Your task to perform on an android device: Open Android settings Image 0: 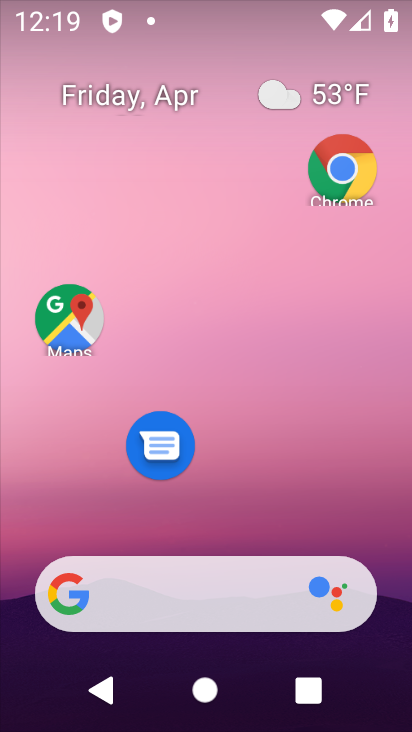
Step 0: click (336, 184)
Your task to perform on an android device: Open Android settings Image 1: 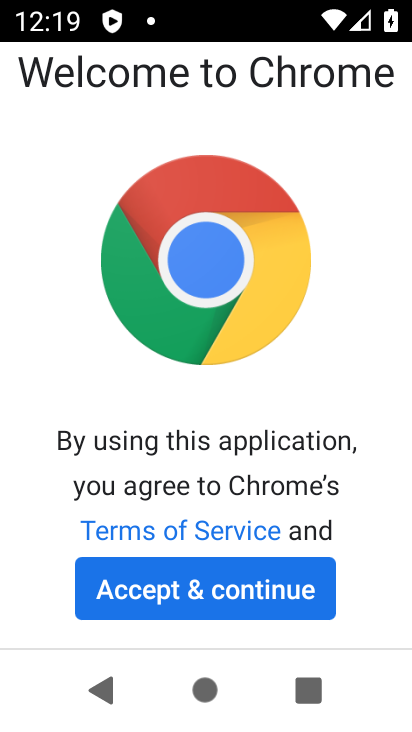
Step 1: click (248, 592)
Your task to perform on an android device: Open Android settings Image 2: 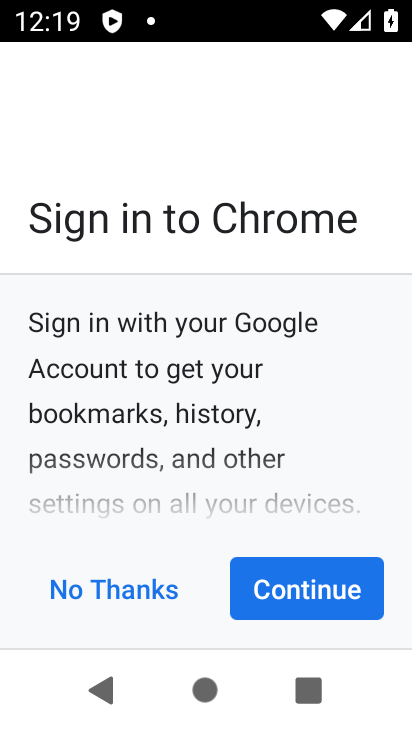
Step 2: press home button
Your task to perform on an android device: Open Android settings Image 3: 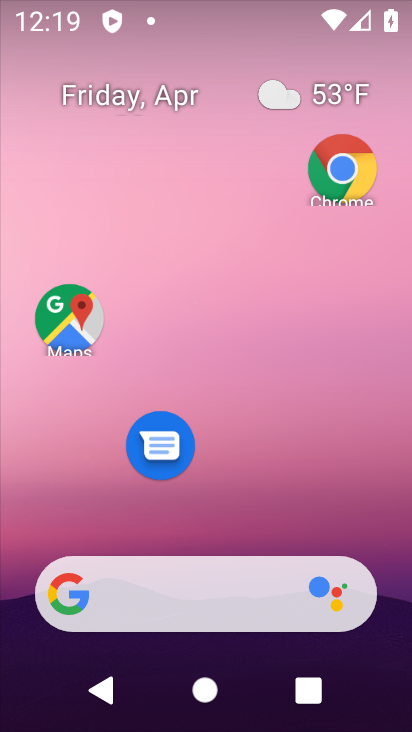
Step 3: drag from (273, 535) to (267, 69)
Your task to perform on an android device: Open Android settings Image 4: 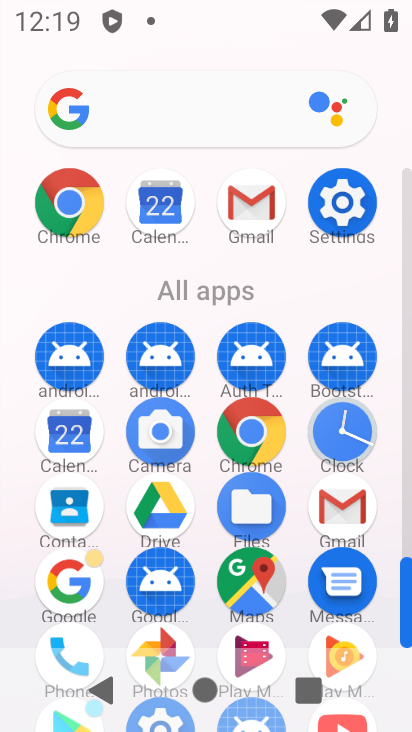
Step 4: click (348, 222)
Your task to perform on an android device: Open Android settings Image 5: 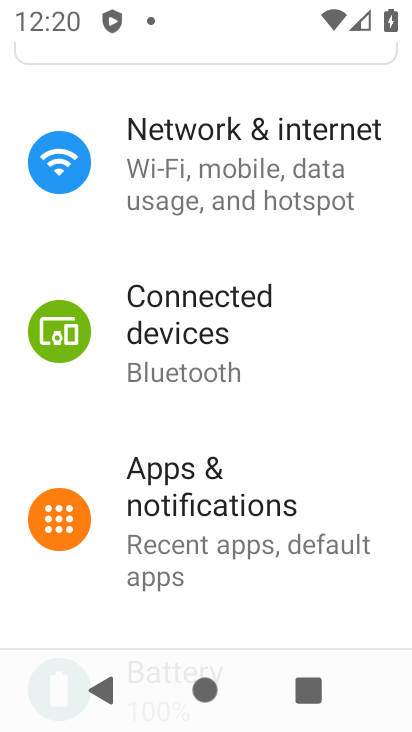
Step 5: drag from (182, 478) to (140, 40)
Your task to perform on an android device: Open Android settings Image 6: 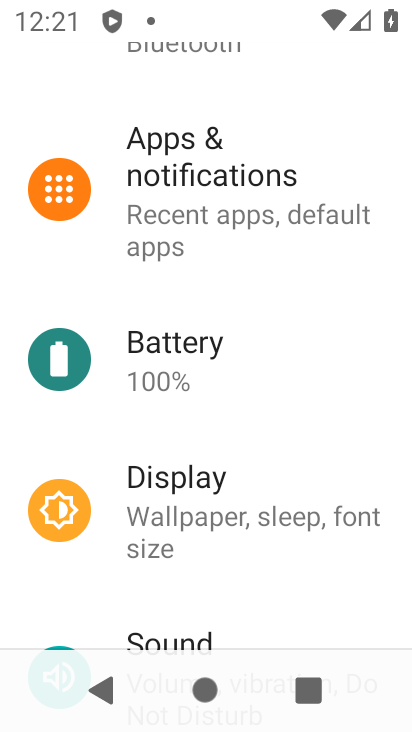
Step 6: drag from (188, 493) to (257, 11)
Your task to perform on an android device: Open Android settings Image 7: 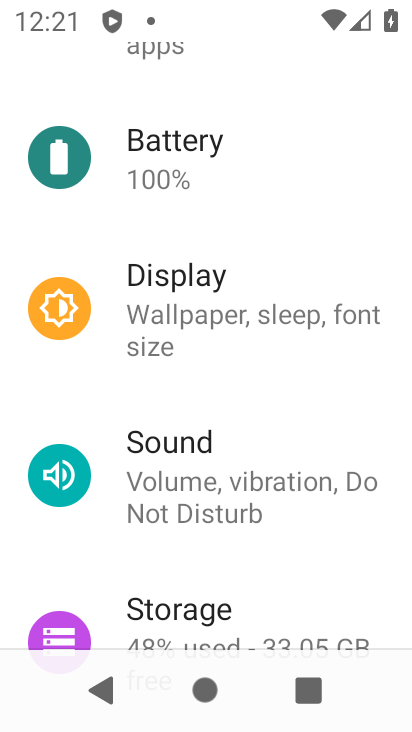
Step 7: drag from (210, 499) to (244, 52)
Your task to perform on an android device: Open Android settings Image 8: 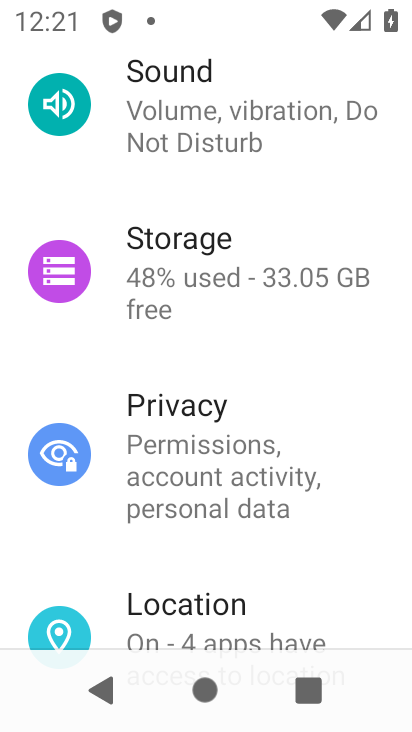
Step 8: drag from (188, 565) to (306, 60)
Your task to perform on an android device: Open Android settings Image 9: 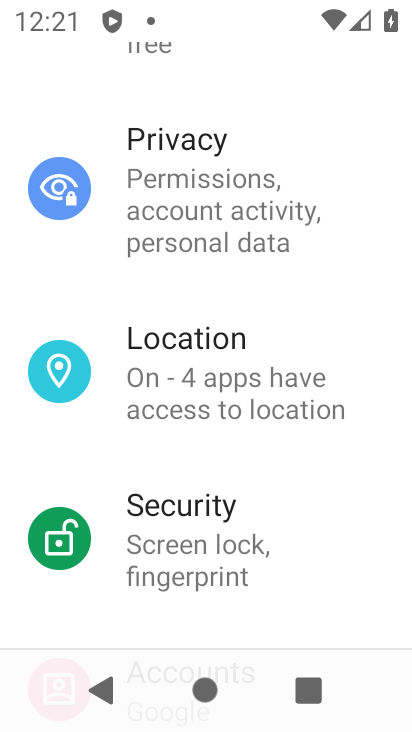
Step 9: drag from (220, 550) to (274, 89)
Your task to perform on an android device: Open Android settings Image 10: 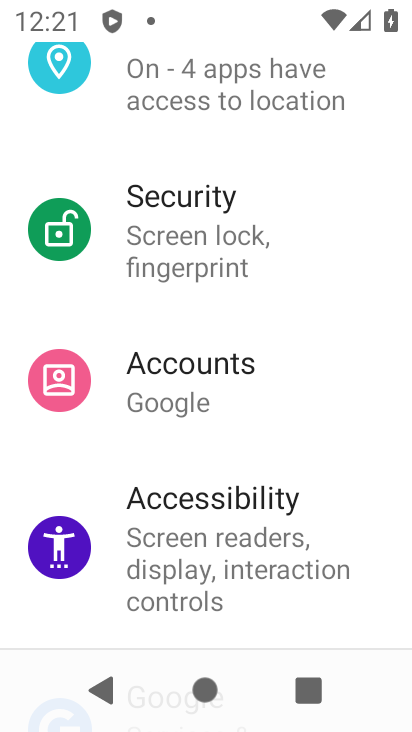
Step 10: drag from (226, 551) to (277, 122)
Your task to perform on an android device: Open Android settings Image 11: 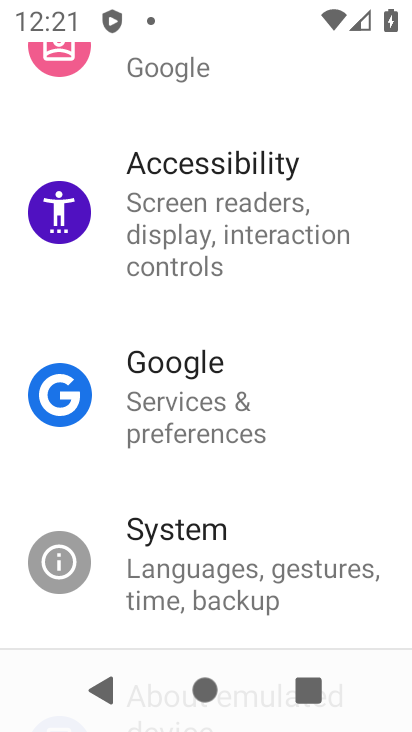
Step 11: click (246, 586)
Your task to perform on an android device: Open Android settings Image 12: 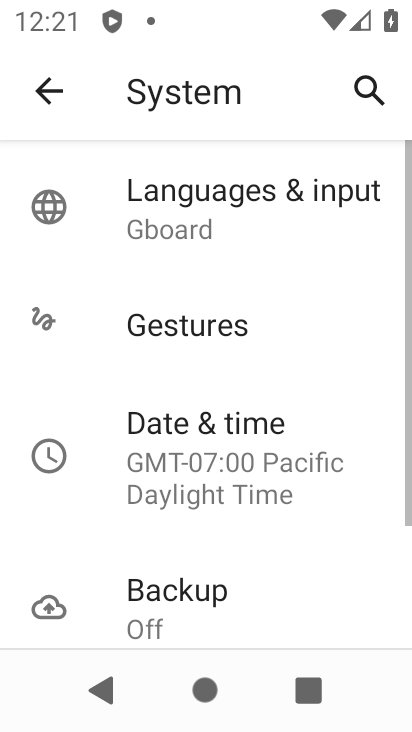
Step 12: task complete